Your task to perform on an android device: Open CNN.com Image 0: 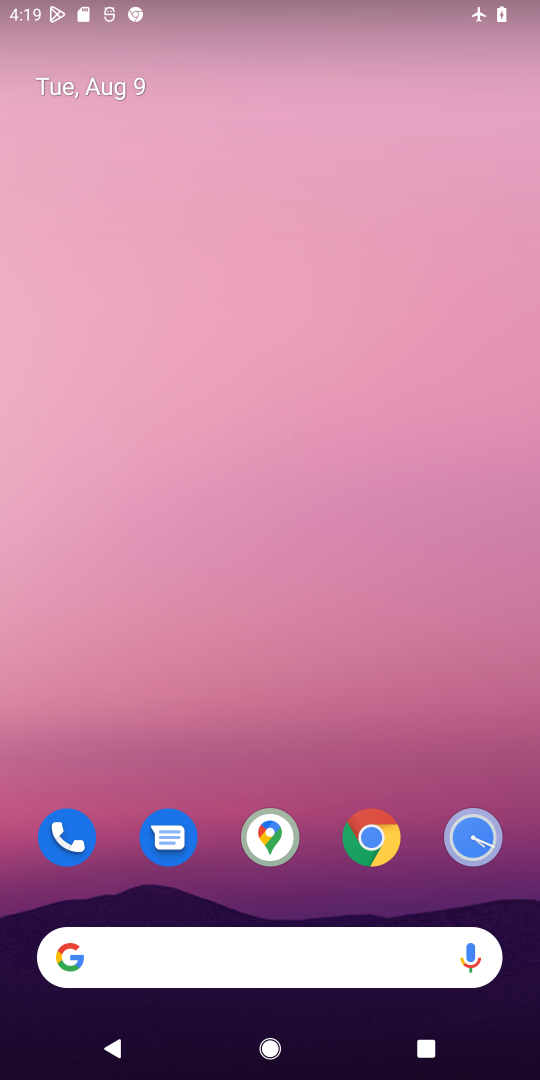
Step 0: drag from (249, 857) to (295, 128)
Your task to perform on an android device: Open CNN.com Image 1: 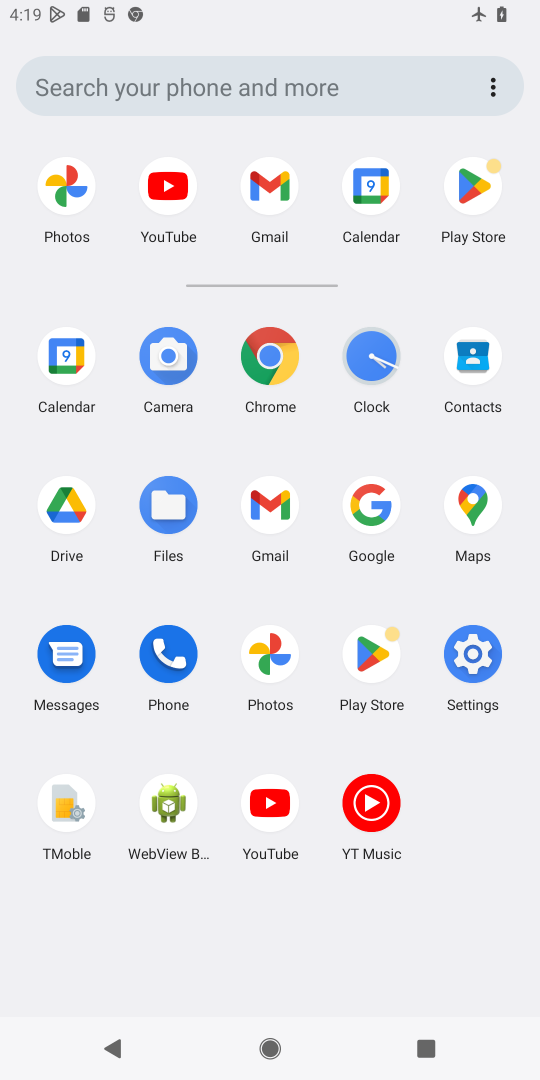
Step 1: click (275, 327)
Your task to perform on an android device: Open CNN.com Image 2: 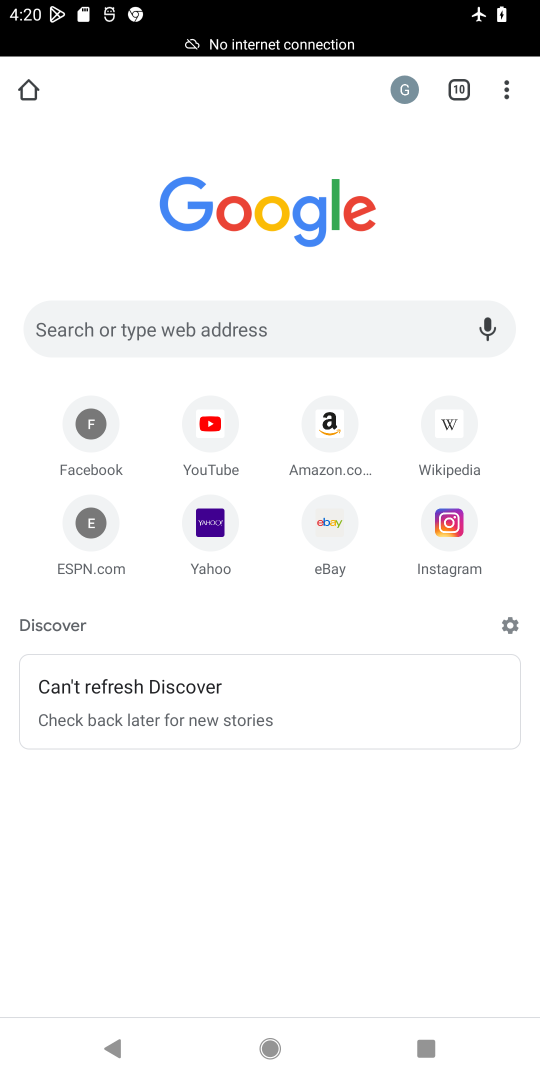
Step 2: click (402, 330)
Your task to perform on an android device: Open CNN.com Image 3: 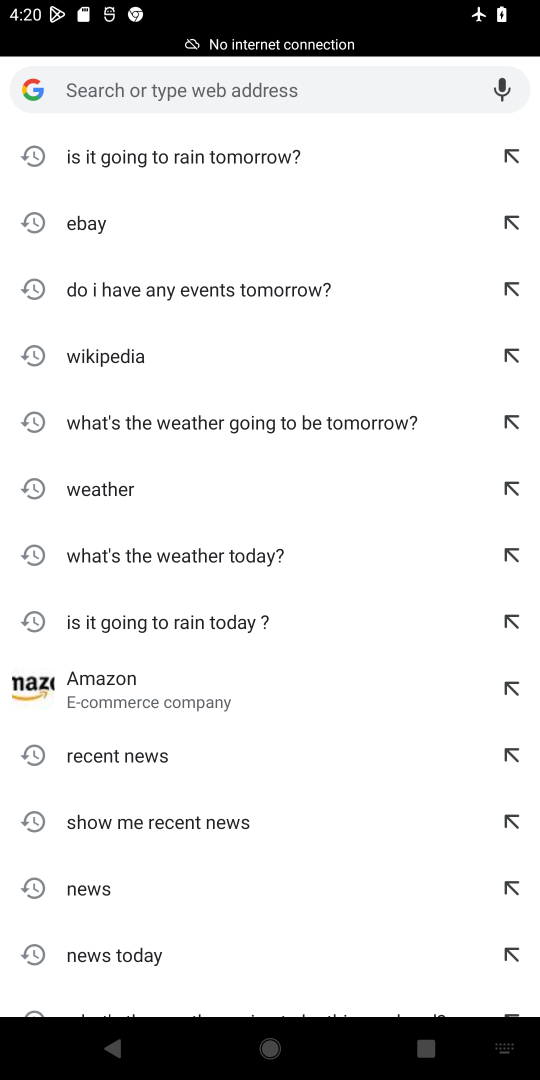
Step 3: type "CNN.com "
Your task to perform on an android device: Open CNN.com Image 4: 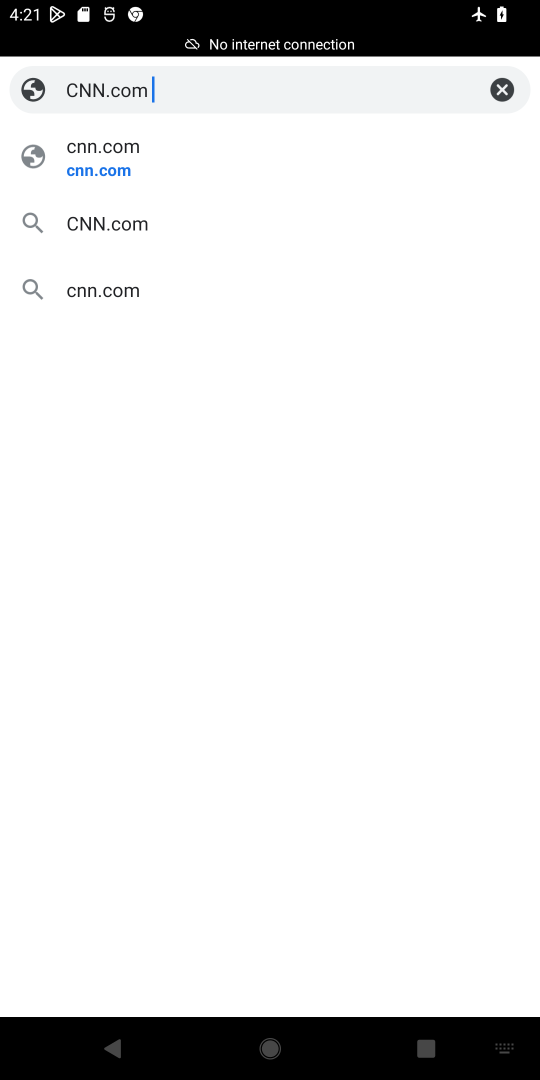
Step 4: click (134, 154)
Your task to perform on an android device: Open CNN.com Image 5: 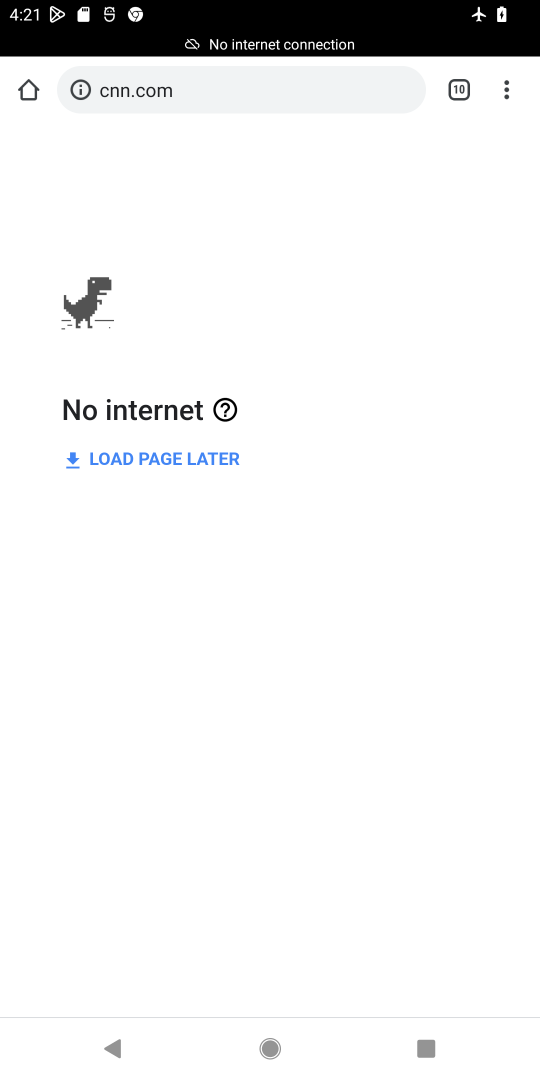
Step 5: task complete